Your task to perform on an android device: Open calendar and show me the first week of next month Image 0: 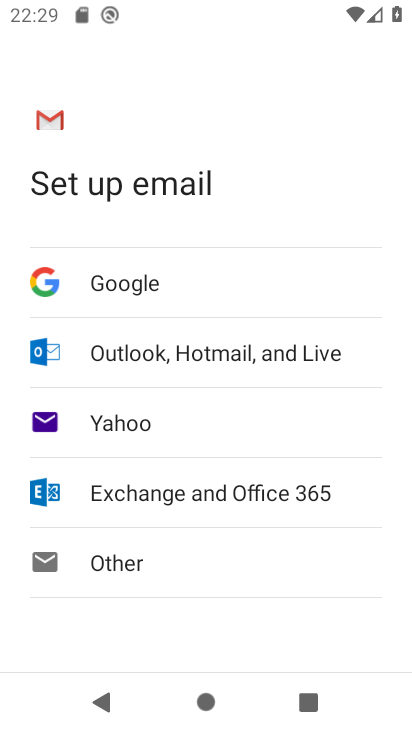
Step 0: press home button
Your task to perform on an android device: Open calendar and show me the first week of next month Image 1: 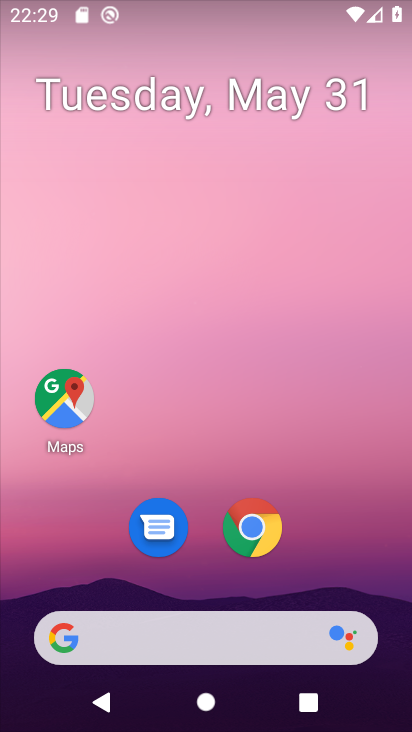
Step 1: drag from (334, 547) to (196, 77)
Your task to perform on an android device: Open calendar and show me the first week of next month Image 2: 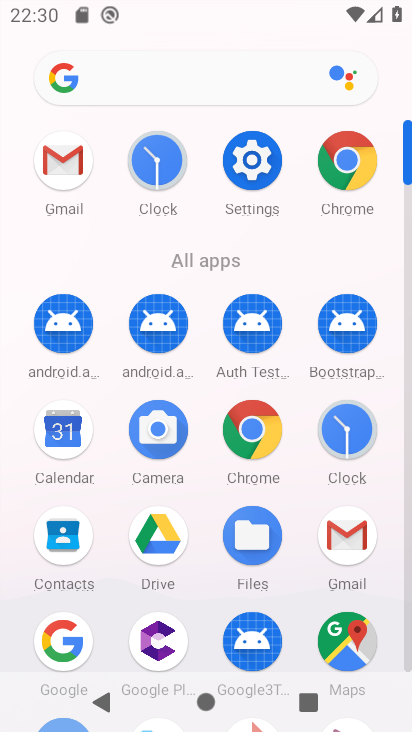
Step 2: click (58, 437)
Your task to perform on an android device: Open calendar and show me the first week of next month Image 3: 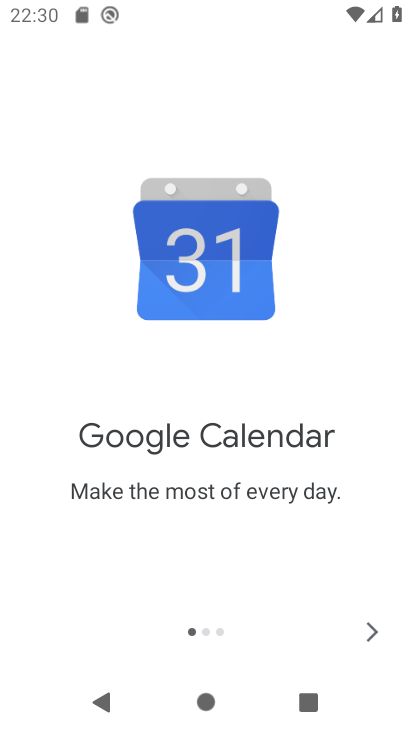
Step 3: click (366, 646)
Your task to perform on an android device: Open calendar and show me the first week of next month Image 4: 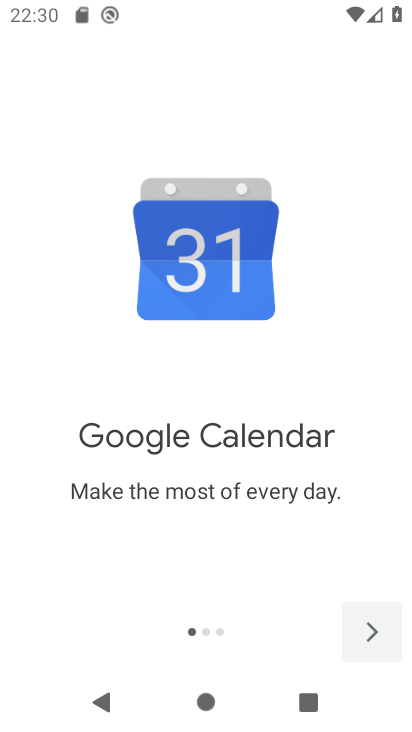
Step 4: click (368, 641)
Your task to perform on an android device: Open calendar and show me the first week of next month Image 5: 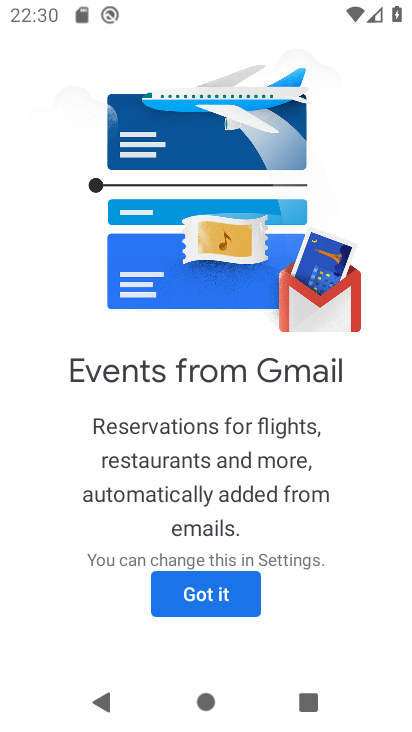
Step 5: click (207, 595)
Your task to perform on an android device: Open calendar and show me the first week of next month Image 6: 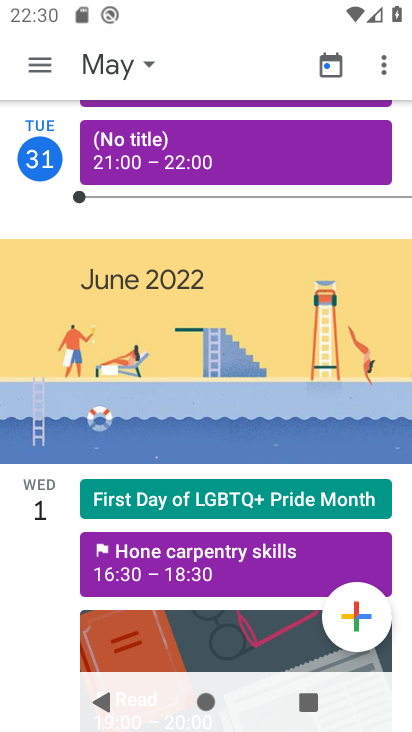
Step 6: click (35, 61)
Your task to perform on an android device: Open calendar and show me the first week of next month Image 7: 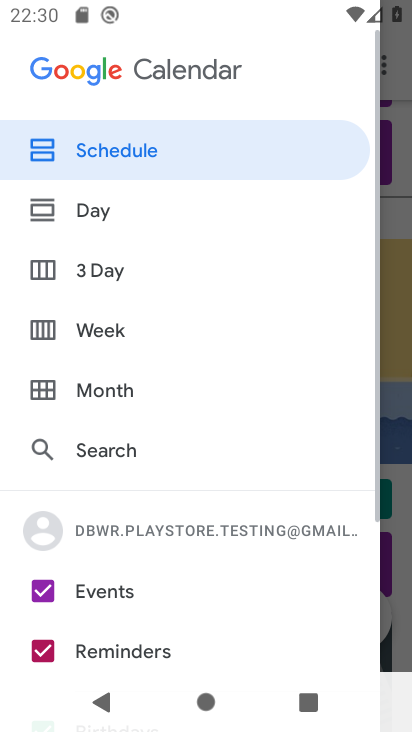
Step 7: click (119, 318)
Your task to perform on an android device: Open calendar and show me the first week of next month Image 8: 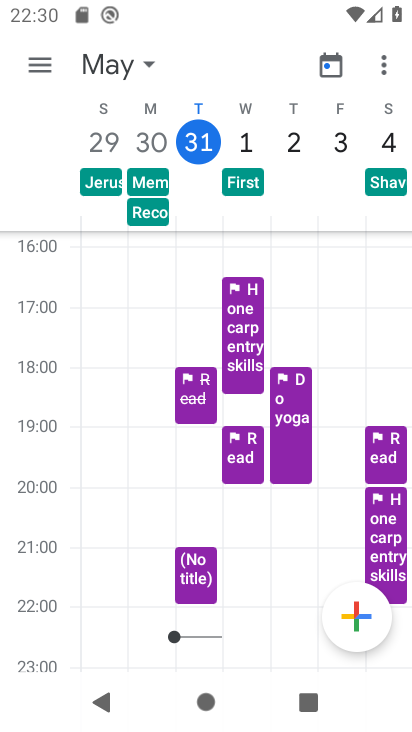
Step 8: click (145, 59)
Your task to perform on an android device: Open calendar and show me the first week of next month Image 9: 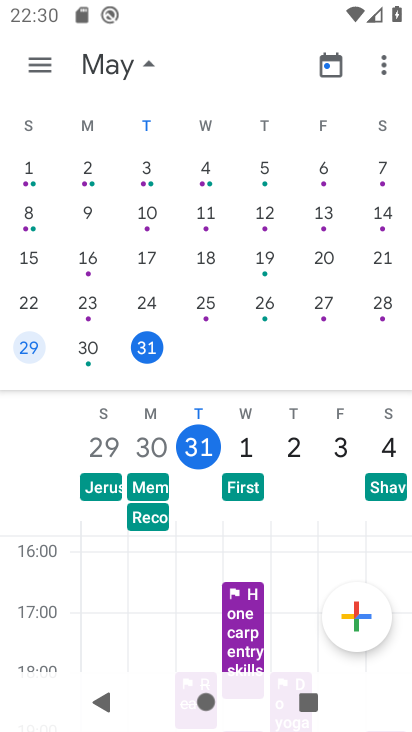
Step 9: drag from (330, 241) to (15, 155)
Your task to perform on an android device: Open calendar and show me the first week of next month Image 10: 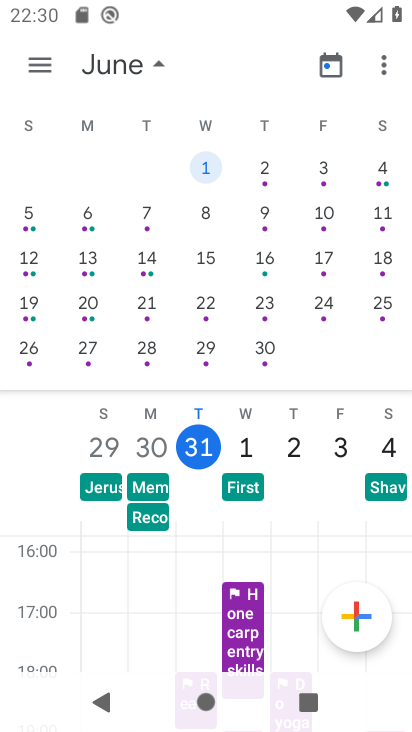
Step 10: click (208, 167)
Your task to perform on an android device: Open calendar and show me the first week of next month Image 11: 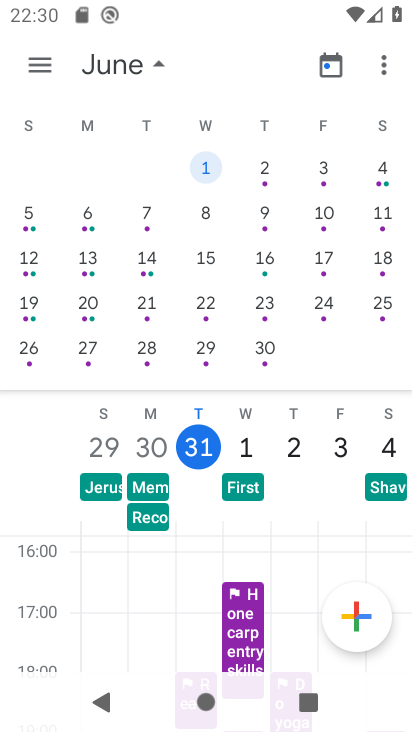
Step 11: task complete